Your task to perform on an android device: Open maps Image 0: 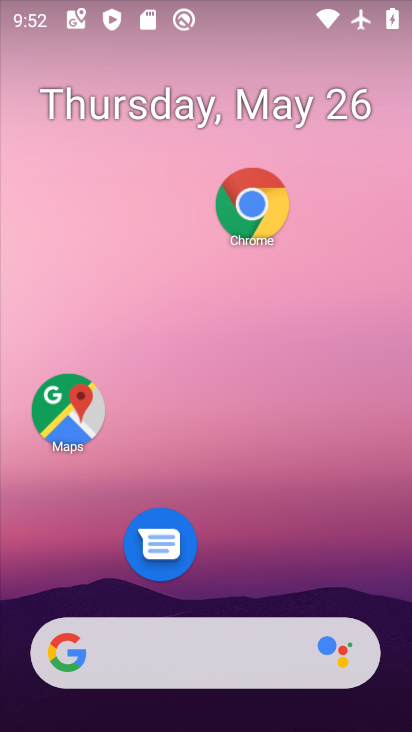
Step 0: click (68, 404)
Your task to perform on an android device: Open maps Image 1: 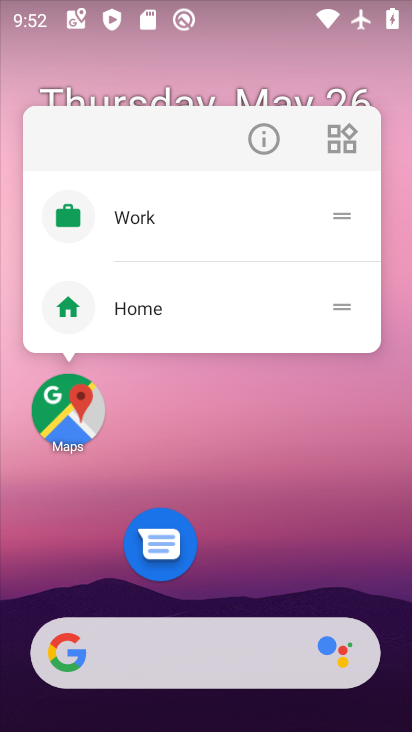
Step 1: click (71, 405)
Your task to perform on an android device: Open maps Image 2: 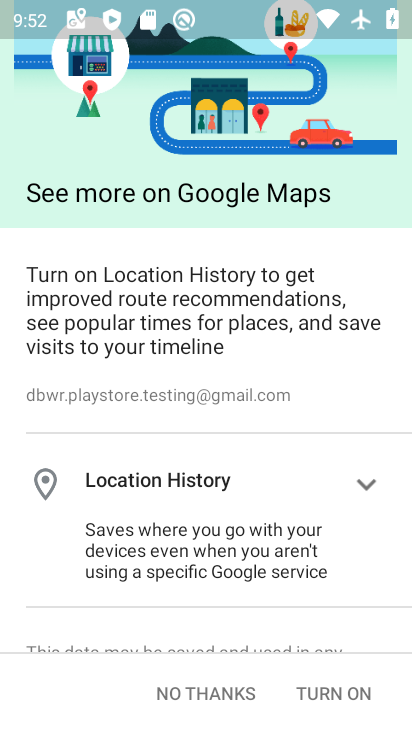
Step 2: drag from (253, 620) to (316, 245)
Your task to perform on an android device: Open maps Image 3: 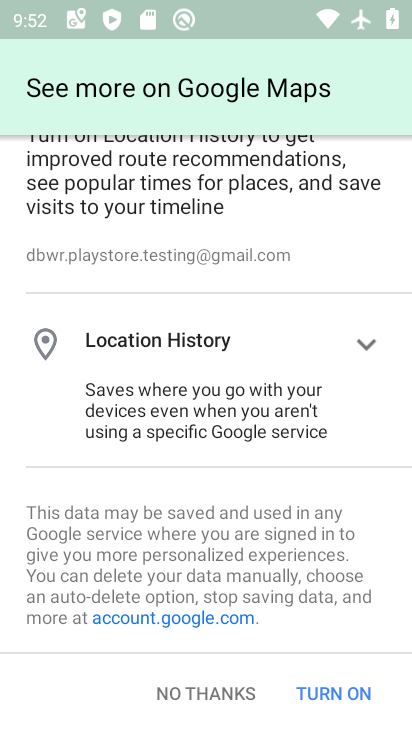
Step 3: click (336, 693)
Your task to perform on an android device: Open maps Image 4: 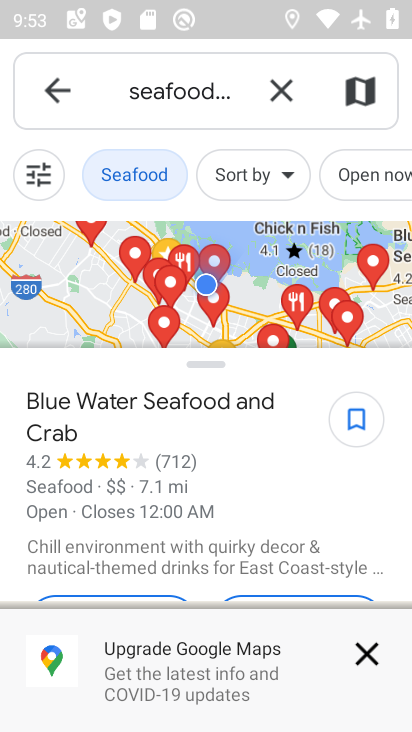
Step 4: click (363, 649)
Your task to perform on an android device: Open maps Image 5: 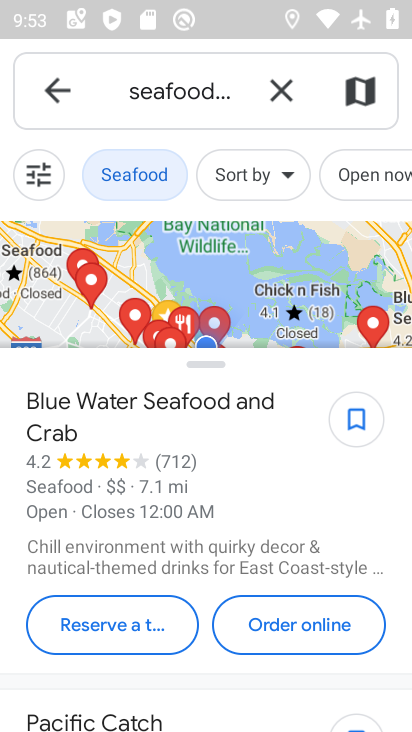
Step 5: drag from (204, 591) to (231, 154)
Your task to perform on an android device: Open maps Image 6: 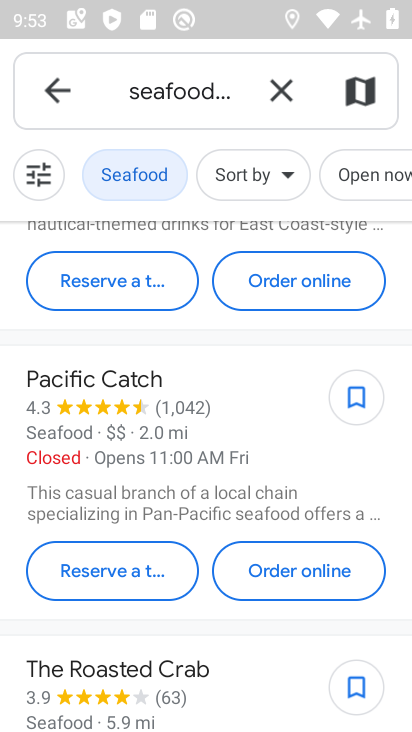
Step 6: click (67, 89)
Your task to perform on an android device: Open maps Image 7: 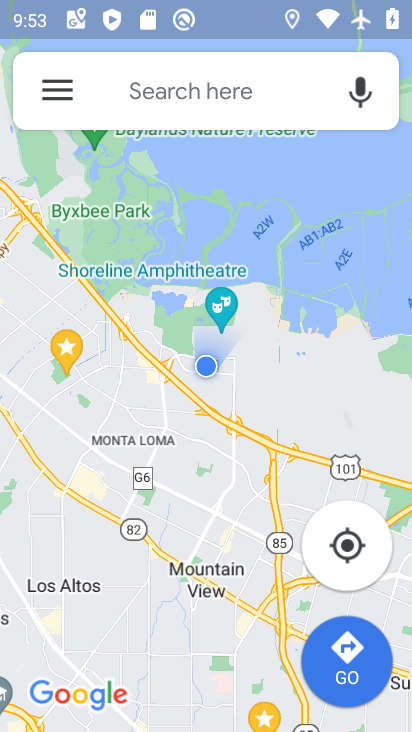
Step 7: task complete